Your task to perform on an android device: turn off javascript in the chrome app Image 0: 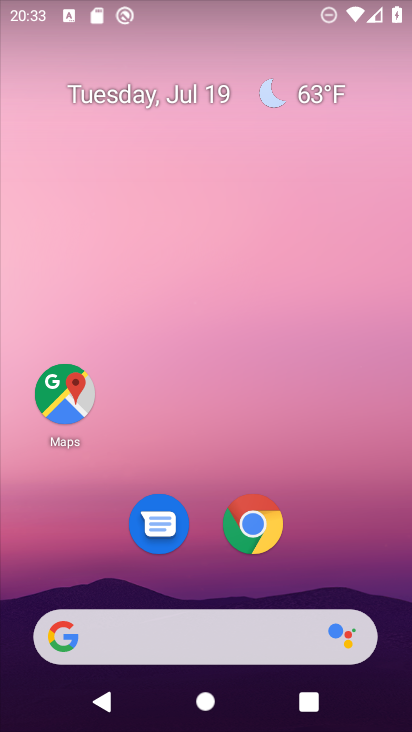
Step 0: click (269, 532)
Your task to perform on an android device: turn off javascript in the chrome app Image 1: 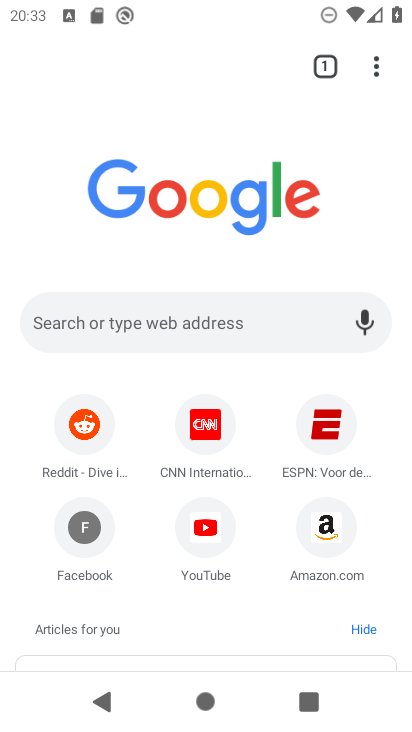
Step 1: click (379, 71)
Your task to perform on an android device: turn off javascript in the chrome app Image 2: 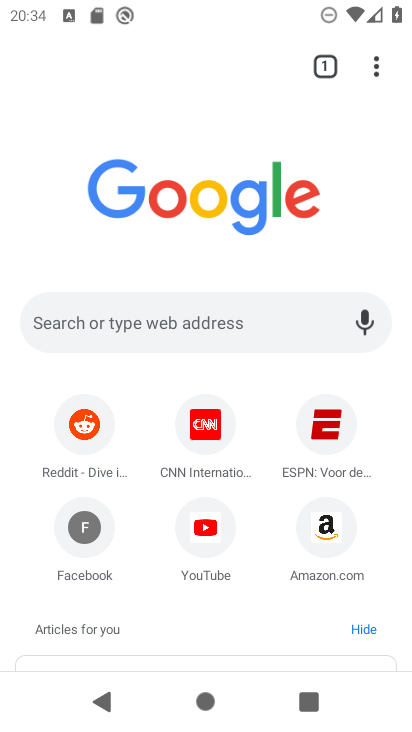
Step 2: click (379, 71)
Your task to perform on an android device: turn off javascript in the chrome app Image 3: 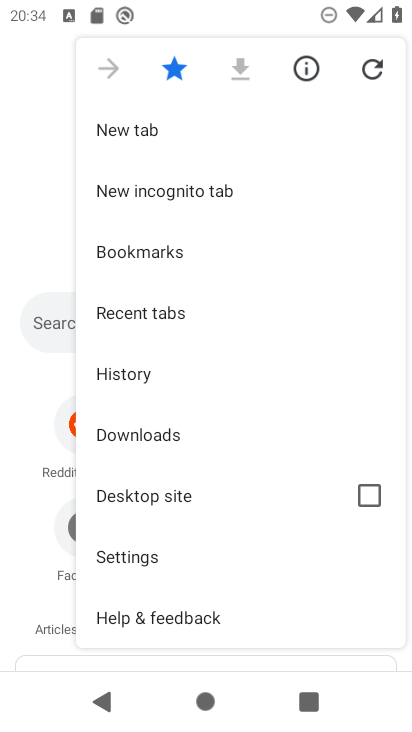
Step 3: click (147, 550)
Your task to perform on an android device: turn off javascript in the chrome app Image 4: 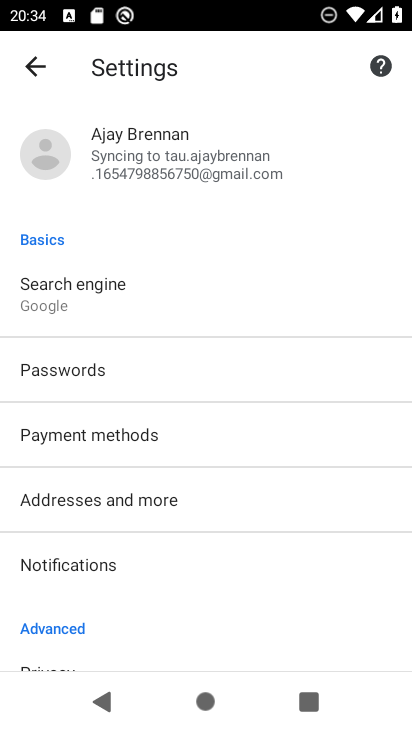
Step 4: drag from (147, 550) to (148, 345)
Your task to perform on an android device: turn off javascript in the chrome app Image 5: 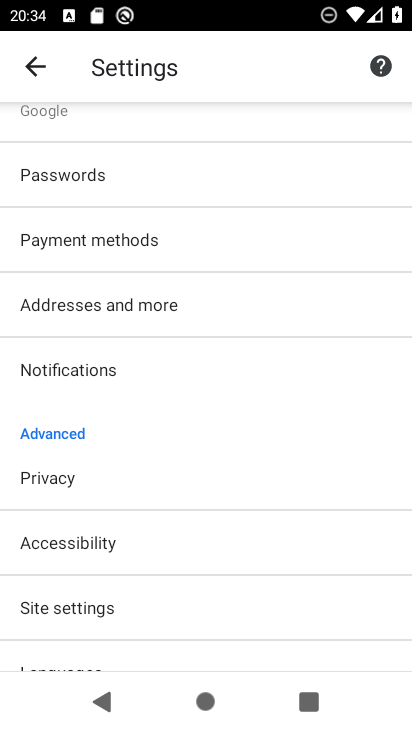
Step 5: click (129, 603)
Your task to perform on an android device: turn off javascript in the chrome app Image 6: 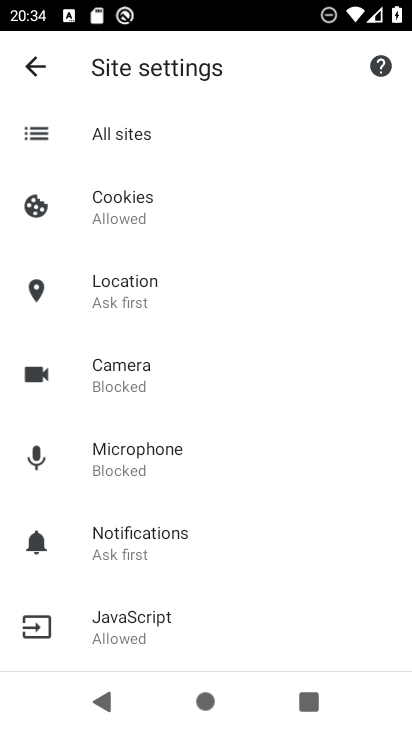
Step 6: click (129, 619)
Your task to perform on an android device: turn off javascript in the chrome app Image 7: 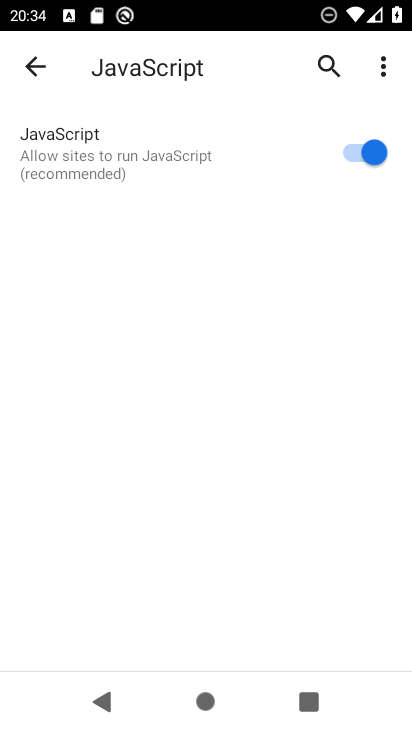
Step 7: click (353, 146)
Your task to perform on an android device: turn off javascript in the chrome app Image 8: 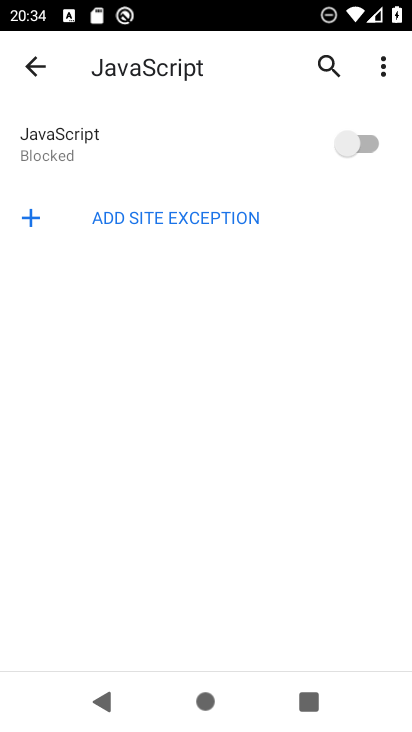
Step 8: task complete